Your task to perform on an android device: Show me popular games on the Play Store Image 0: 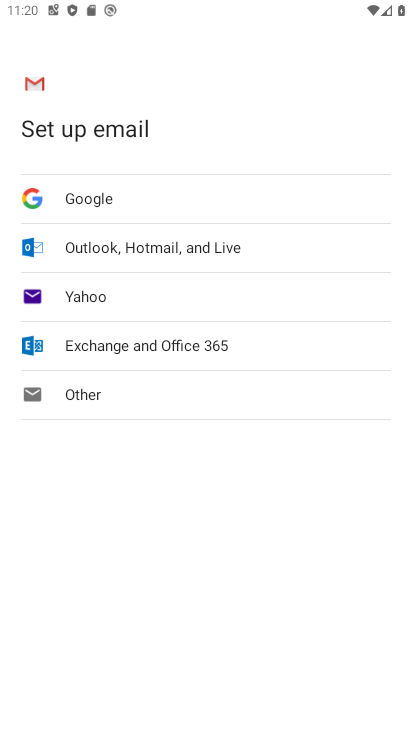
Step 0: press home button
Your task to perform on an android device: Show me popular games on the Play Store Image 1: 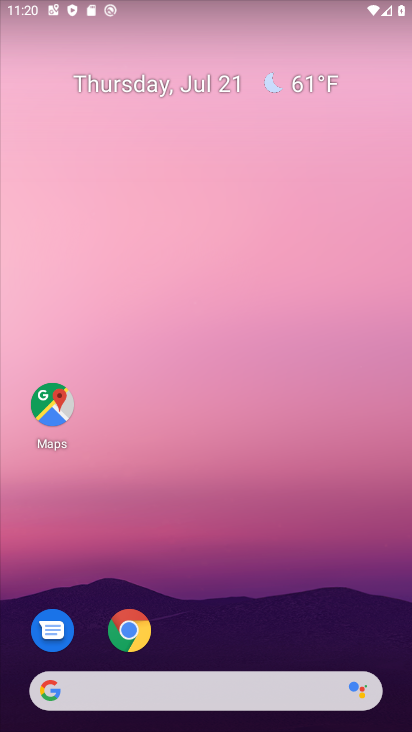
Step 1: drag from (150, 675) to (206, 350)
Your task to perform on an android device: Show me popular games on the Play Store Image 2: 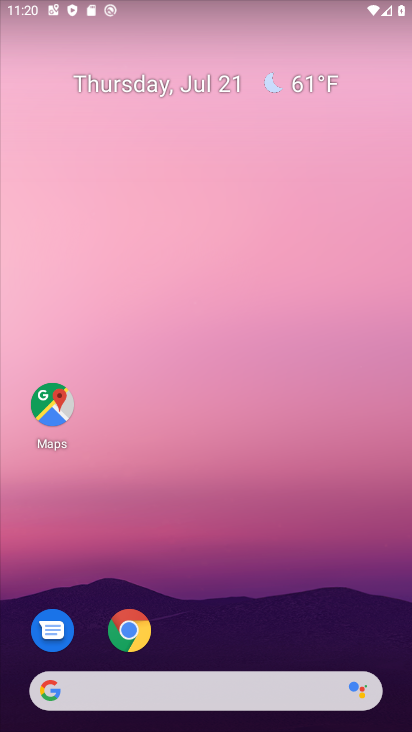
Step 2: drag from (242, 670) to (242, 238)
Your task to perform on an android device: Show me popular games on the Play Store Image 3: 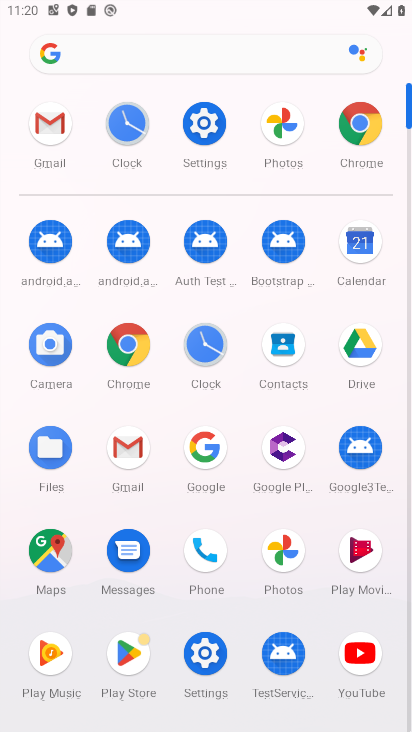
Step 3: click (133, 659)
Your task to perform on an android device: Show me popular games on the Play Store Image 4: 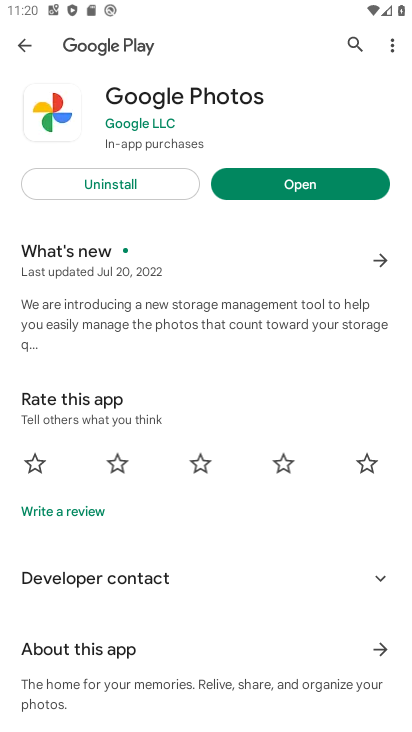
Step 4: click (22, 48)
Your task to perform on an android device: Show me popular games on the Play Store Image 5: 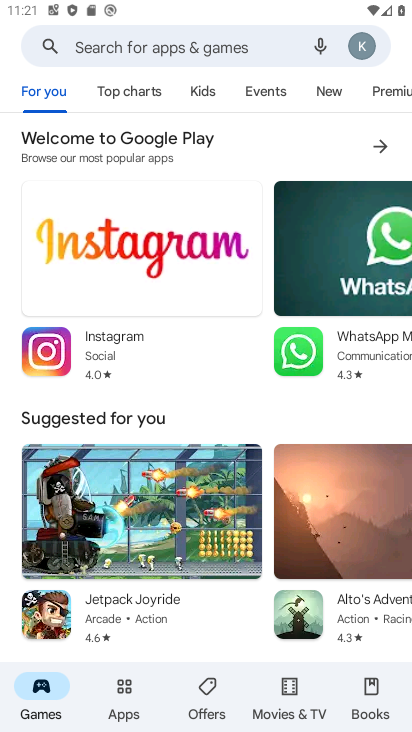
Step 5: type "popular games"
Your task to perform on an android device: Show me popular games on the Play Store Image 6: 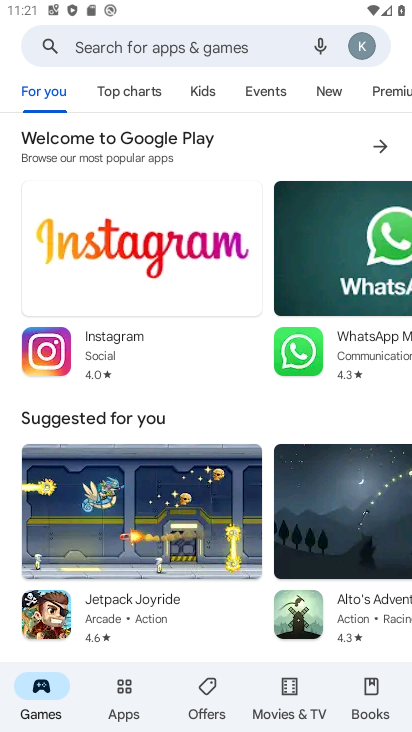
Step 6: click (119, 42)
Your task to perform on an android device: Show me popular games on the Play Store Image 7: 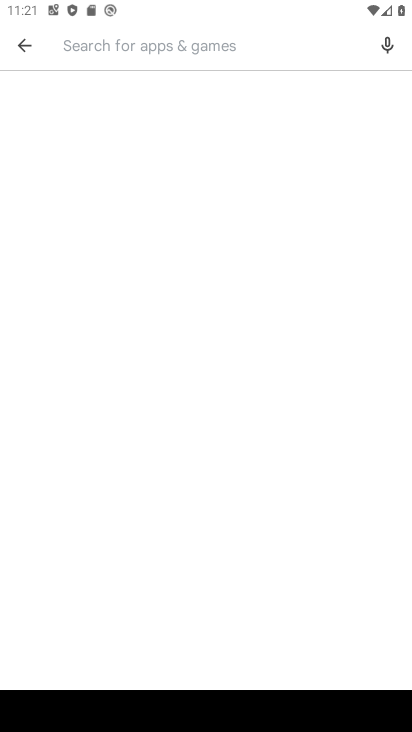
Step 7: type "popular games"
Your task to perform on an android device: Show me popular games on the Play Store Image 8: 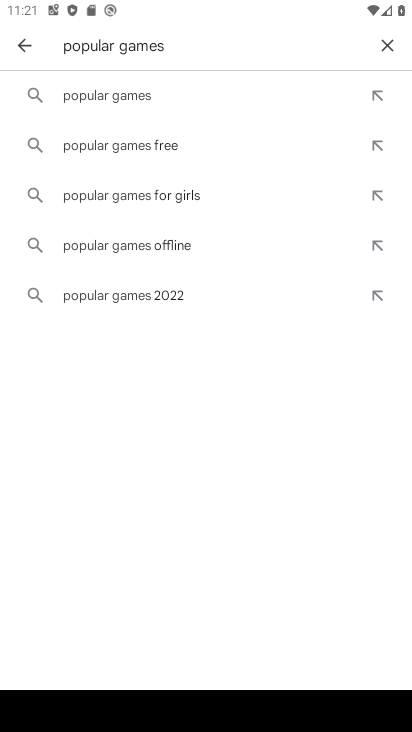
Step 8: click (123, 107)
Your task to perform on an android device: Show me popular games on the Play Store Image 9: 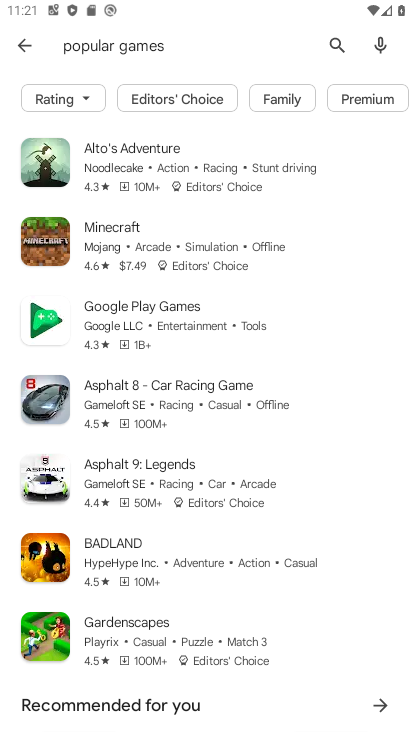
Step 9: task complete